Your task to perform on an android device: choose inbox layout in the gmail app Image 0: 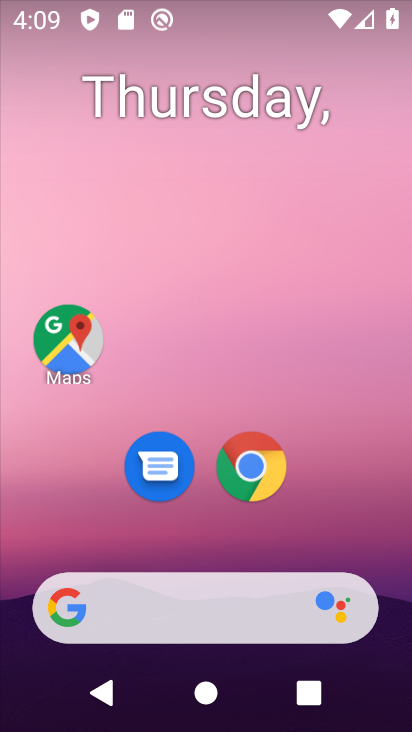
Step 0: drag from (336, 539) to (329, 12)
Your task to perform on an android device: choose inbox layout in the gmail app Image 1: 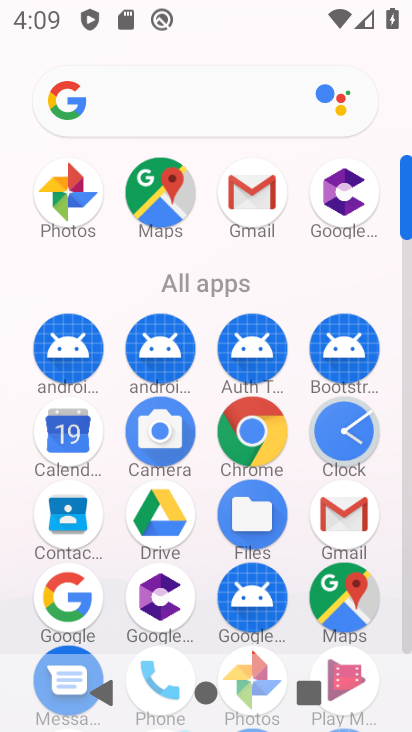
Step 1: click (269, 196)
Your task to perform on an android device: choose inbox layout in the gmail app Image 2: 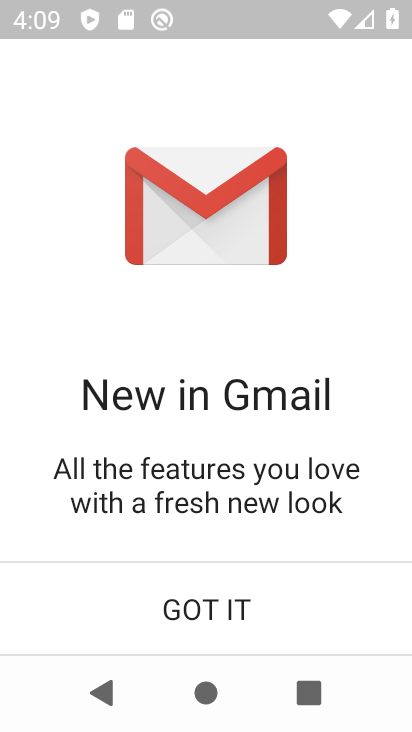
Step 2: click (214, 595)
Your task to perform on an android device: choose inbox layout in the gmail app Image 3: 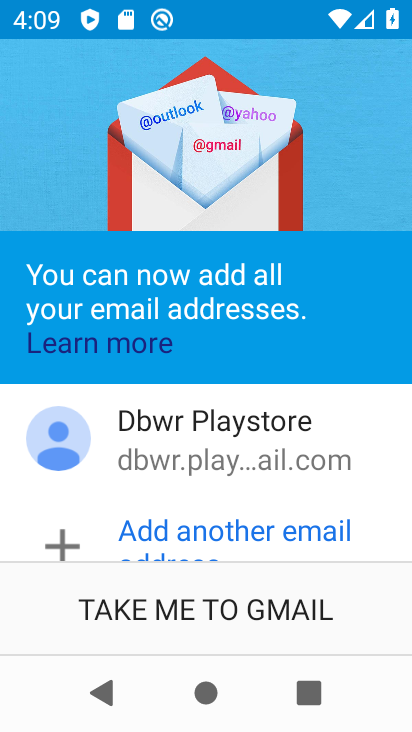
Step 3: click (214, 595)
Your task to perform on an android device: choose inbox layout in the gmail app Image 4: 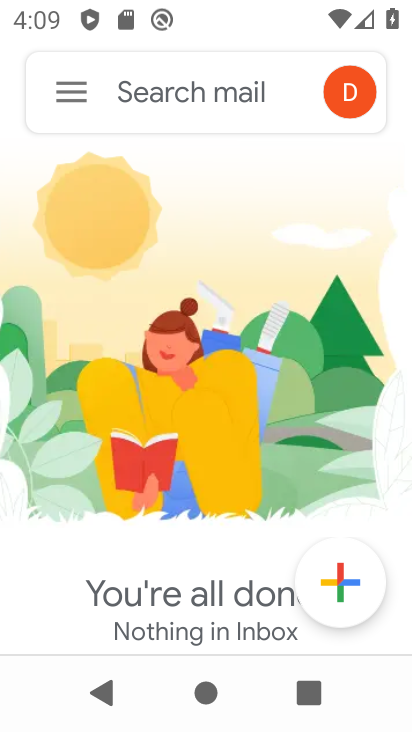
Step 4: click (54, 84)
Your task to perform on an android device: choose inbox layout in the gmail app Image 5: 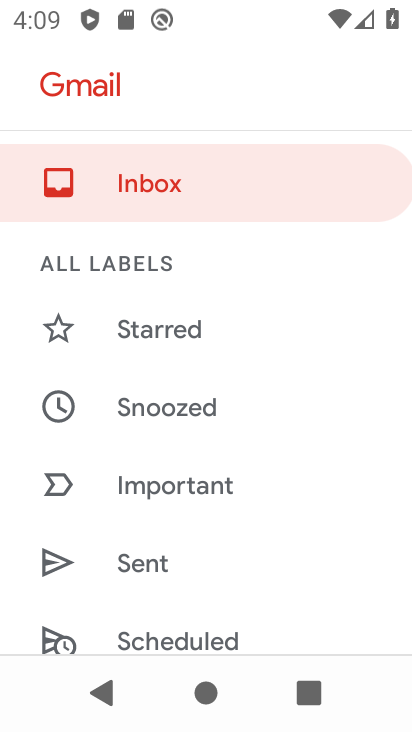
Step 5: drag from (152, 526) to (161, 194)
Your task to perform on an android device: choose inbox layout in the gmail app Image 6: 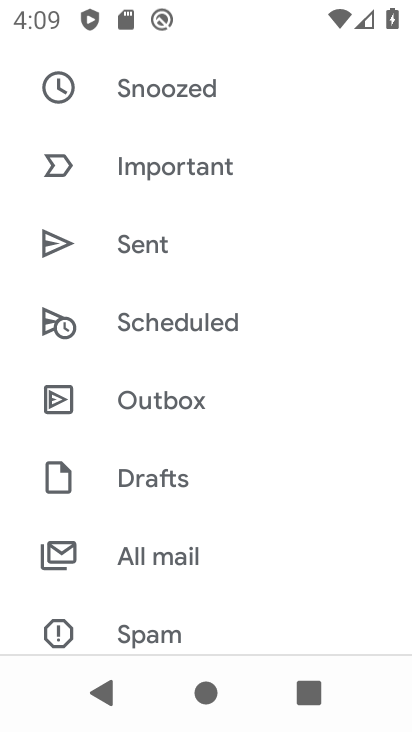
Step 6: drag from (176, 568) to (198, 208)
Your task to perform on an android device: choose inbox layout in the gmail app Image 7: 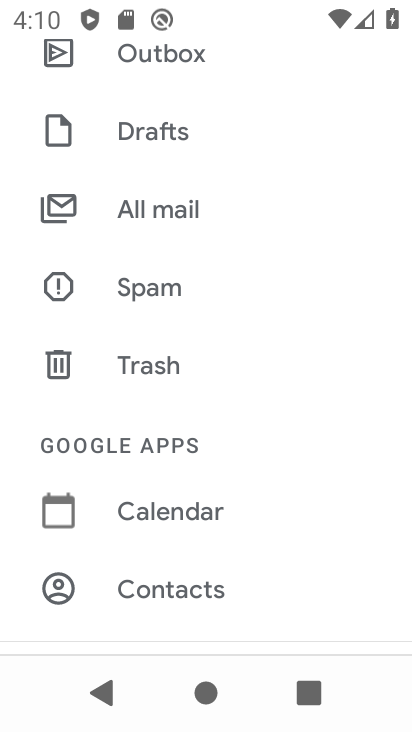
Step 7: drag from (205, 565) to (208, 135)
Your task to perform on an android device: choose inbox layout in the gmail app Image 8: 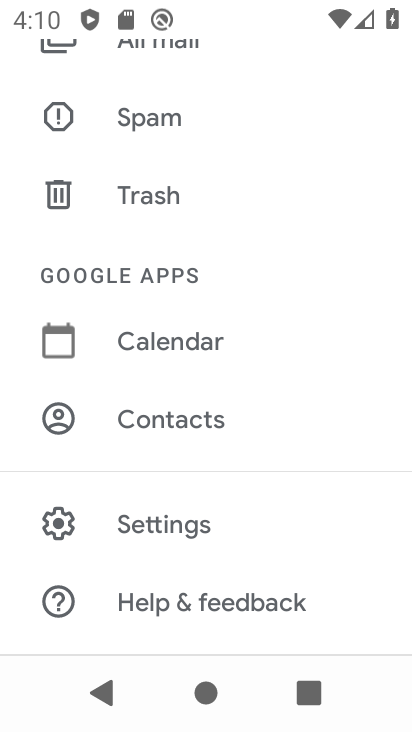
Step 8: click (200, 532)
Your task to perform on an android device: choose inbox layout in the gmail app Image 9: 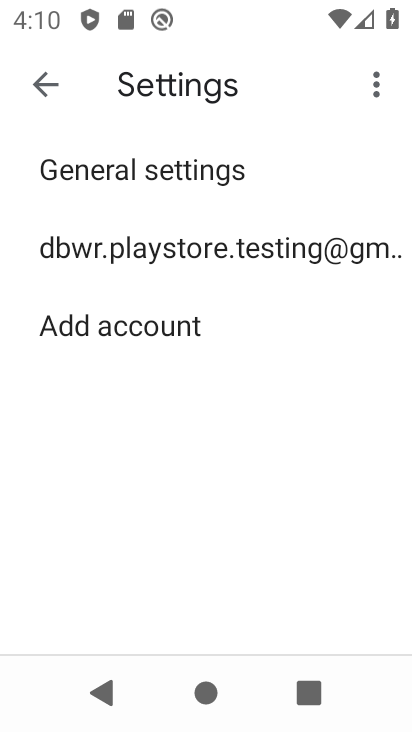
Step 9: click (124, 253)
Your task to perform on an android device: choose inbox layout in the gmail app Image 10: 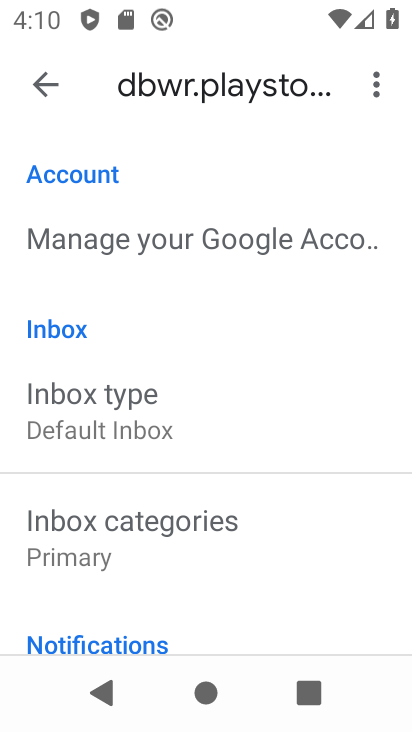
Step 10: click (105, 398)
Your task to perform on an android device: choose inbox layout in the gmail app Image 11: 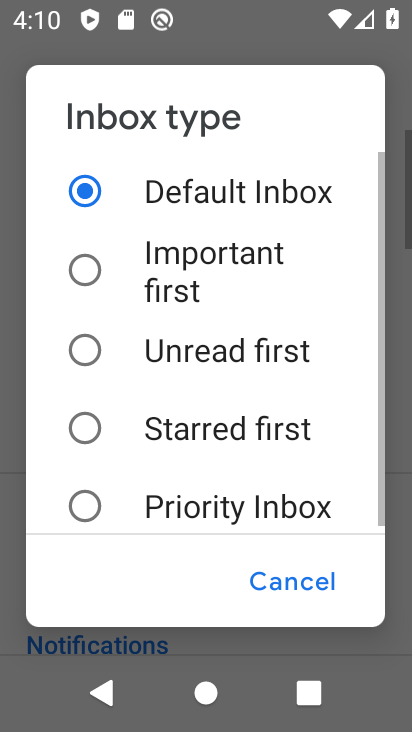
Step 11: click (90, 360)
Your task to perform on an android device: choose inbox layout in the gmail app Image 12: 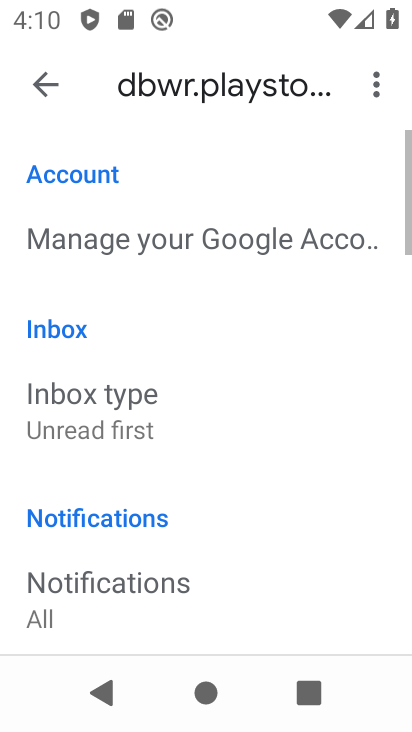
Step 12: task complete